Your task to perform on an android device: refresh tabs in the chrome app Image 0: 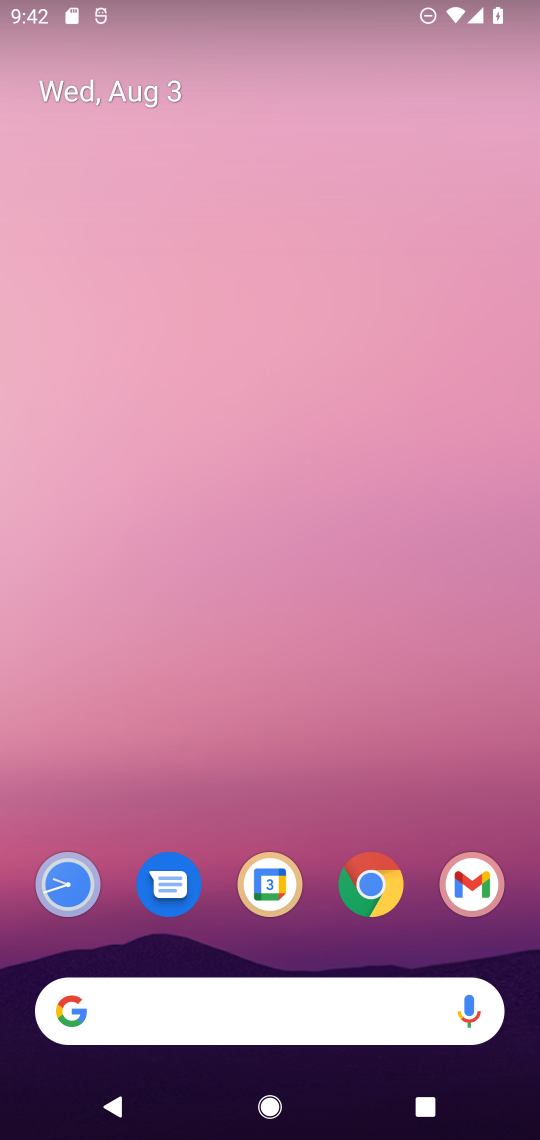
Step 0: click (369, 891)
Your task to perform on an android device: refresh tabs in the chrome app Image 1: 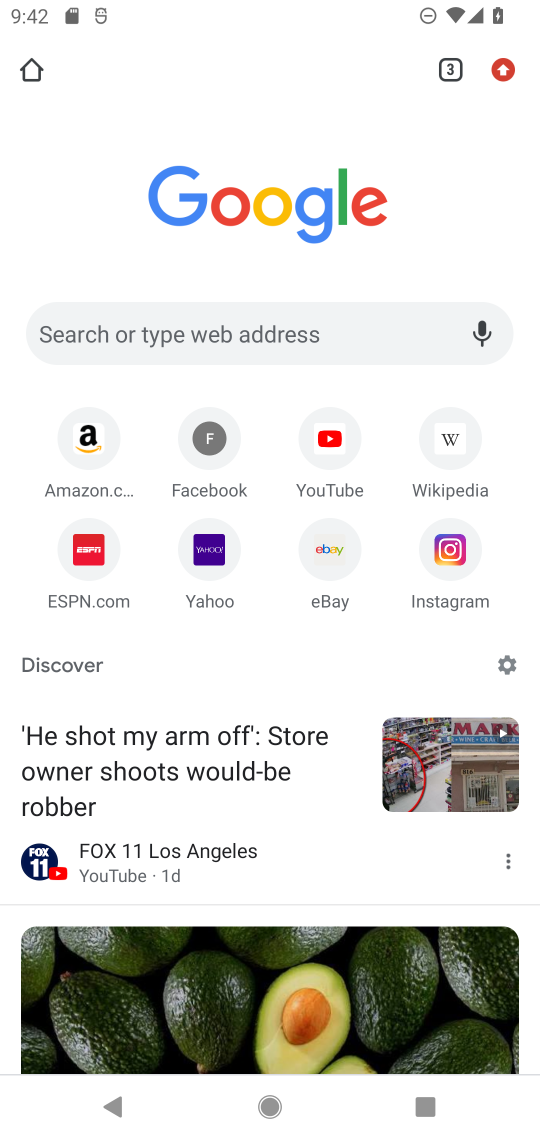
Step 1: click (503, 65)
Your task to perform on an android device: refresh tabs in the chrome app Image 2: 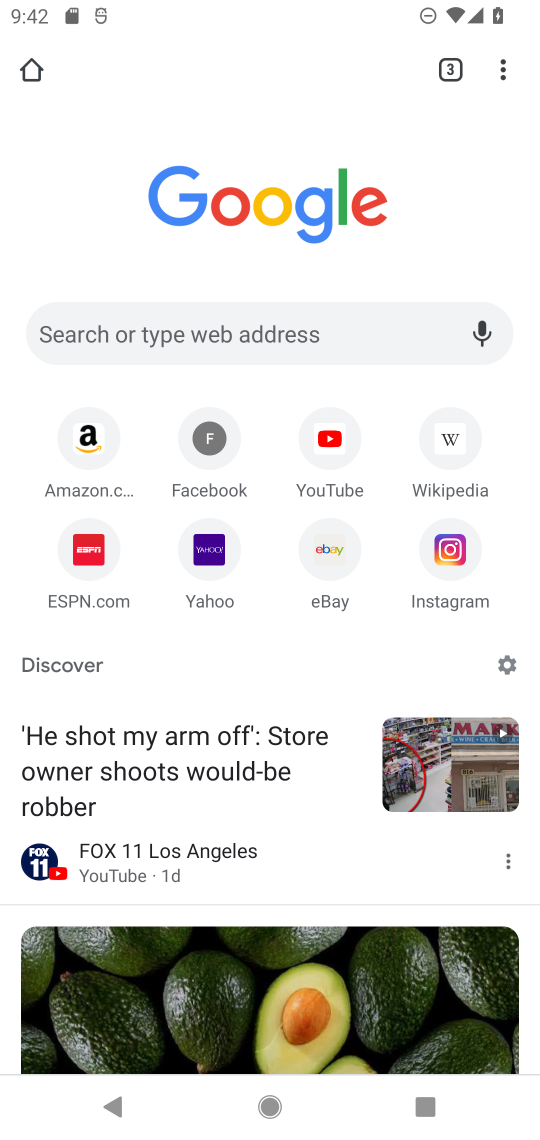
Step 2: click (503, 86)
Your task to perform on an android device: refresh tabs in the chrome app Image 3: 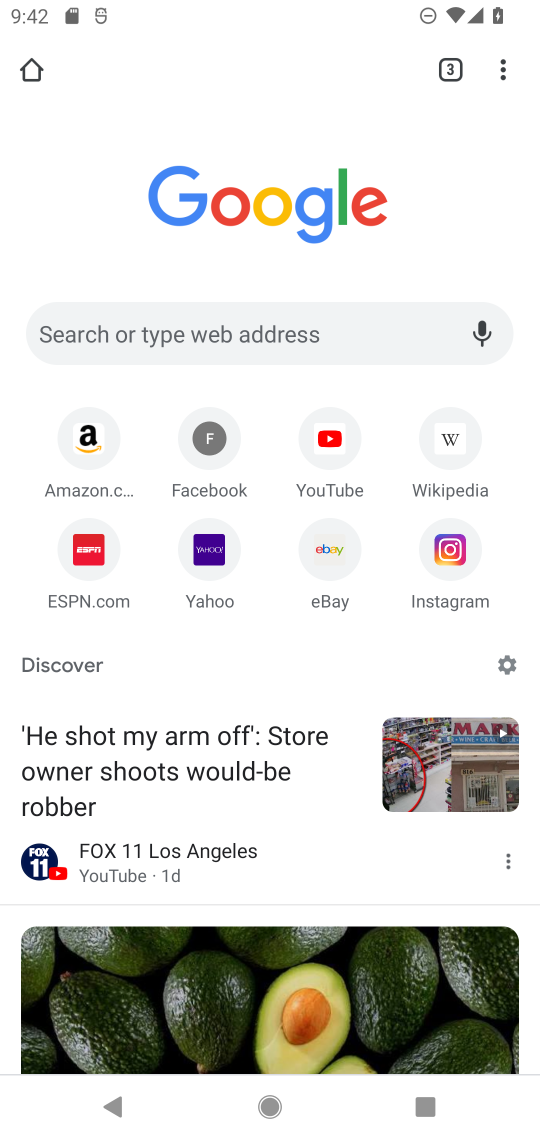
Step 3: click (498, 73)
Your task to perform on an android device: refresh tabs in the chrome app Image 4: 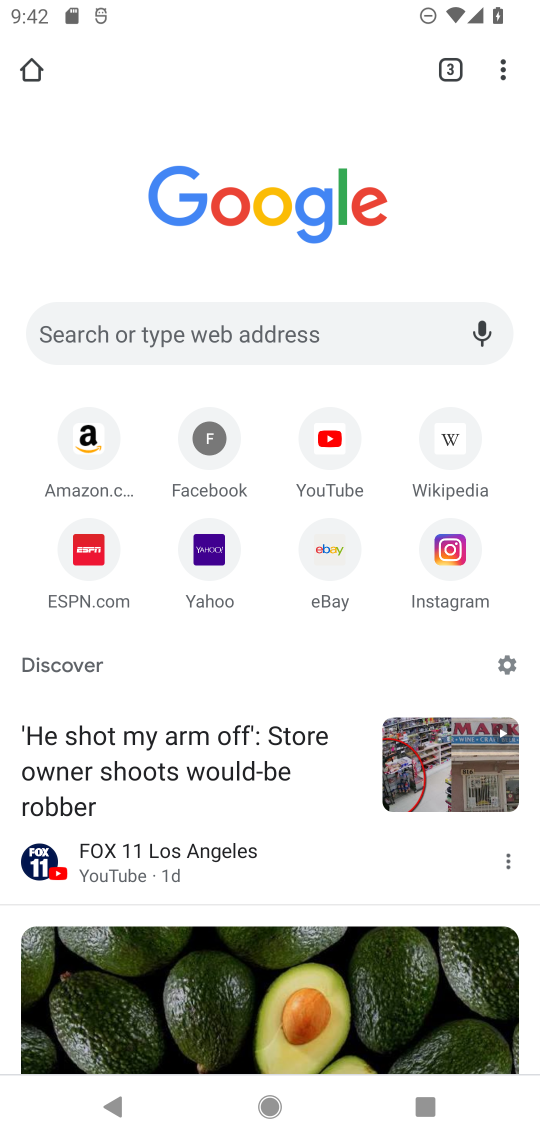
Step 4: click (507, 65)
Your task to perform on an android device: refresh tabs in the chrome app Image 5: 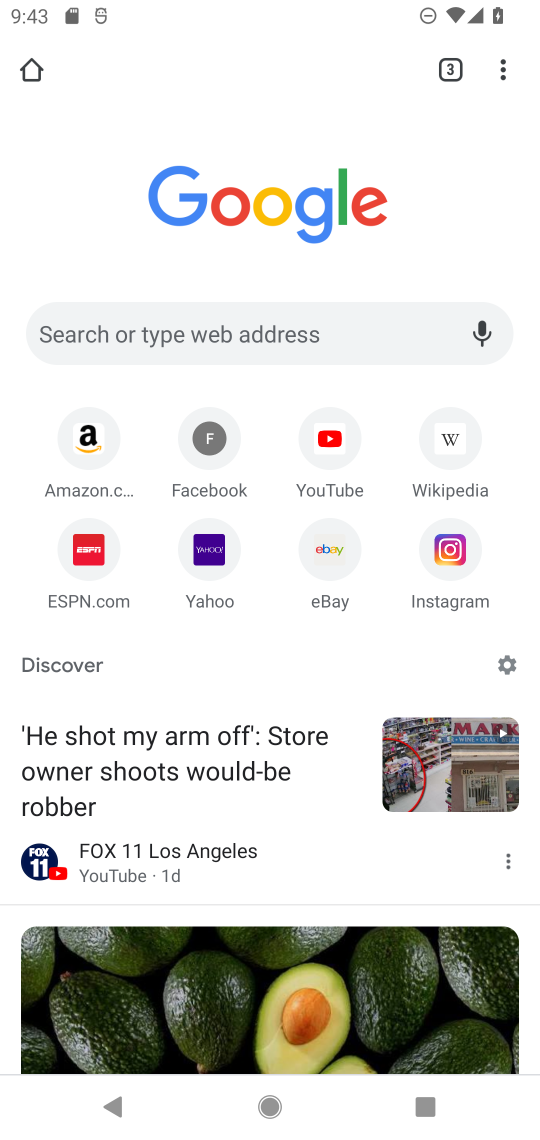
Step 5: click (507, 55)
Your task to perform on an android device: refresh tabs in the chrome app Image 6: 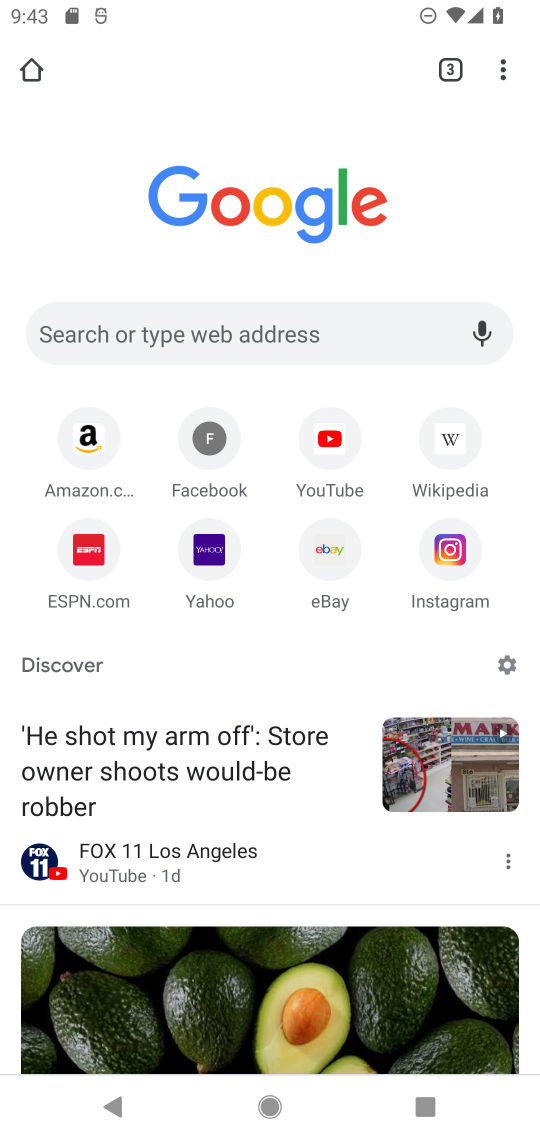
Step 6: task complete